Your task to perform on an android device: toggle pop-ups in chrome Image 0: 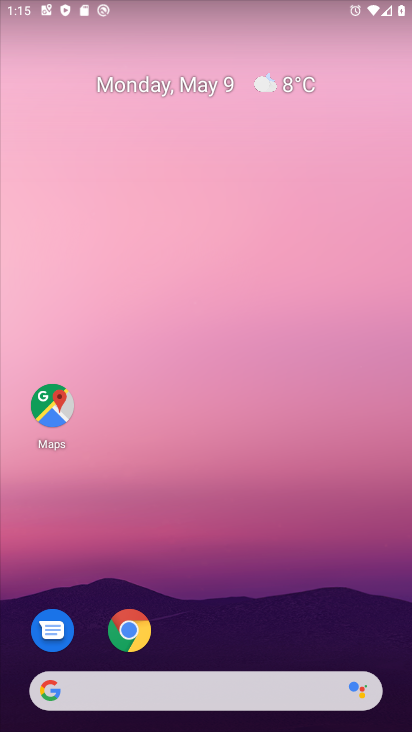
Step 0: drag from (256, 478) to (198, 70)
Your task to perform on an android device: toggle pop-ups in chrome Image 1: 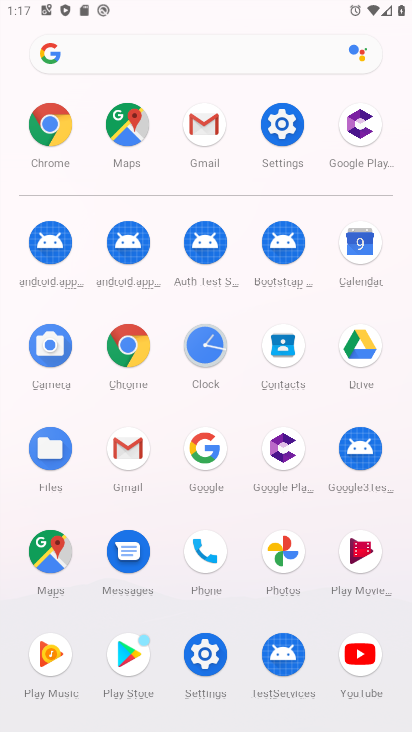
Step 1: click (121, 354)
Your task to perform on an android device: toggle pop-ups in chrome Image 2: 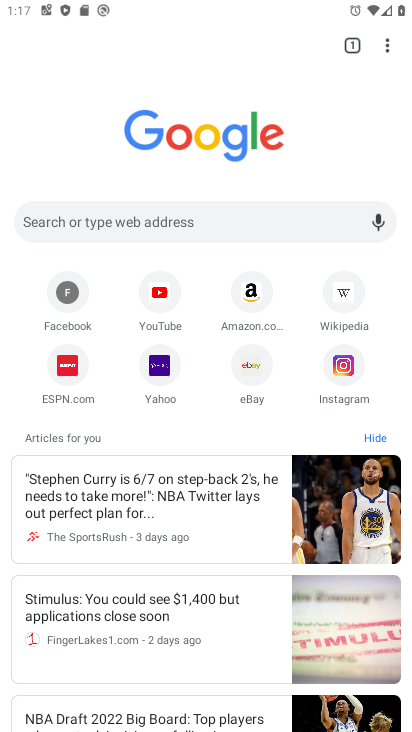
Step 2: click (388, 47)
Your task to perform on an android device: toggle pop-ups in chrome Image 3: 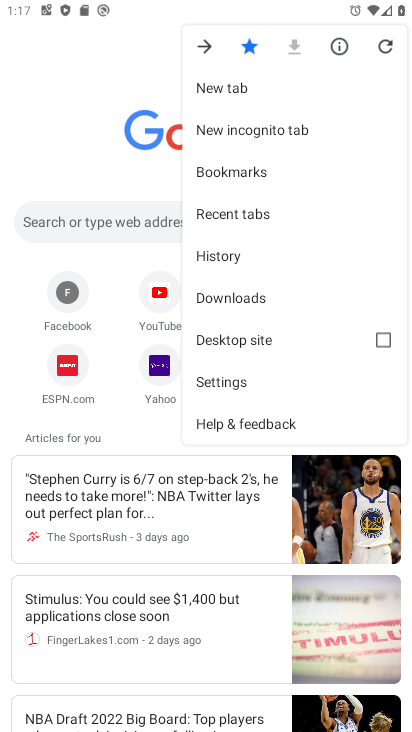
Step 3: click (249, 387)
Your task to perform on an android device: toggle pop-ups in chrome Image 4: 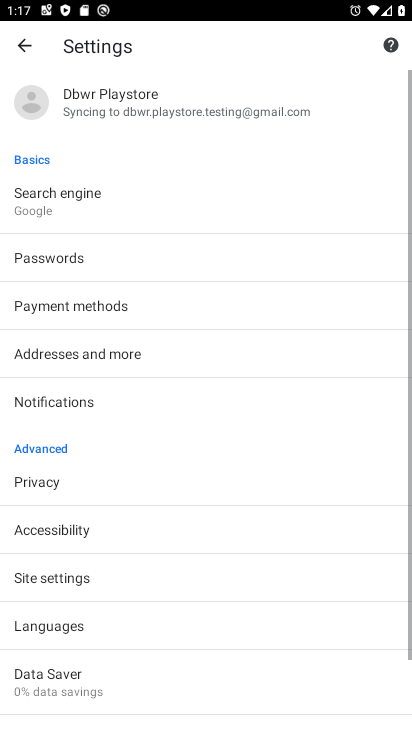
Step 4: click (132, 579)
Your task to perform on an android device: toggle pop-ups in chrome Image 5: 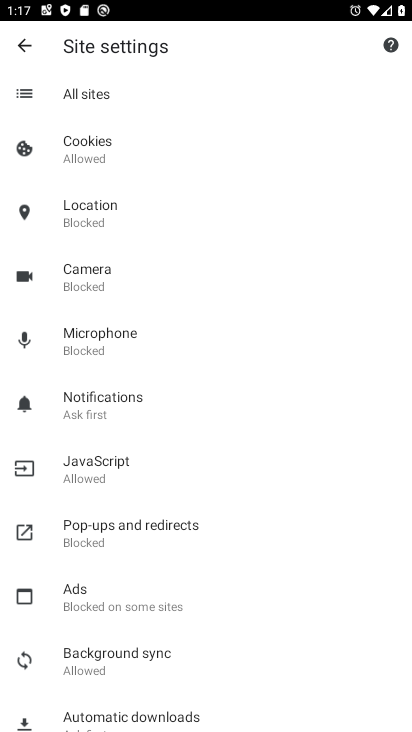
Step 5: click (178, 532)
Your task to perform on an android device: toggle pop-ups in chrome Image 6: 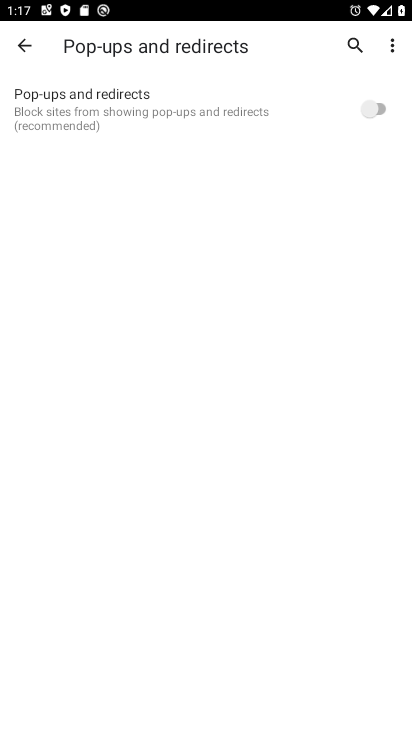
Step 6: click (352, 130)
Your task to perform on an android device: toggle pop-ups in chrome Image 7: 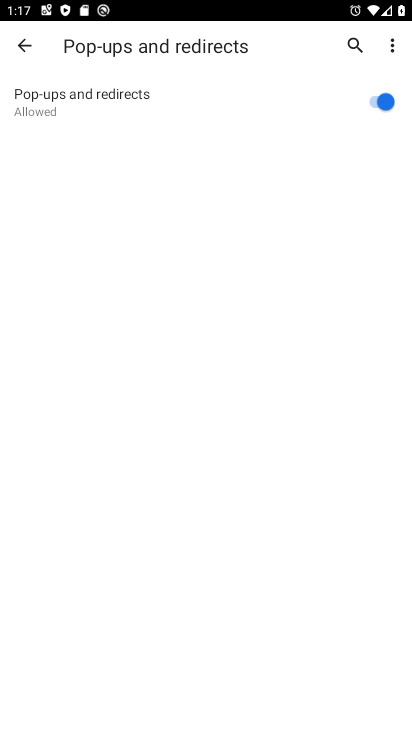
Step 7: task complete